Your task to perform on an android device: uninstall "Google Keep" Image 0: 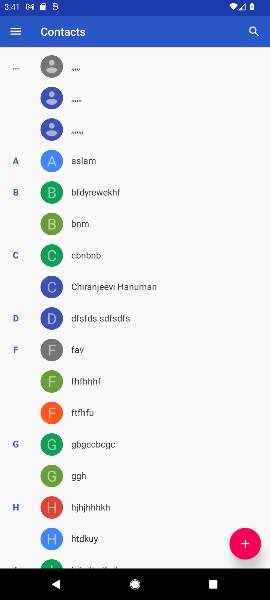
Step 0: press home button
Your task to perform on an android device: uninstall "Google Keep" Image 1: 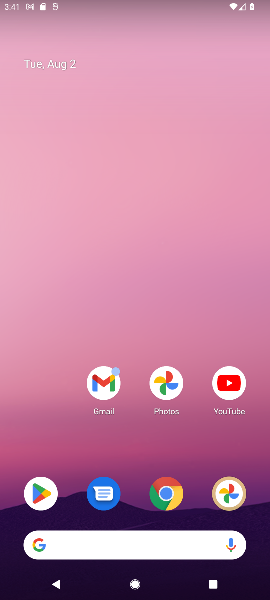
Step 1: click (39, 495)
Your task to perform on an android device: uninstall "Google Keep" Image 2: 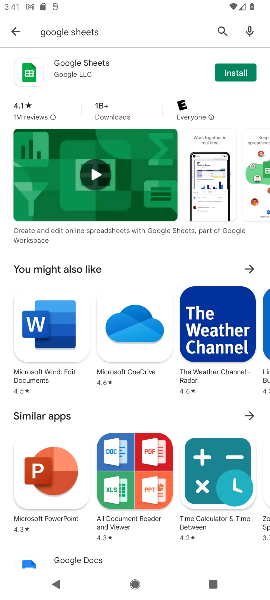
Step 2: click (147, 31)
Your task to perform on an android device: uninstall "Google Keep" Image 3: 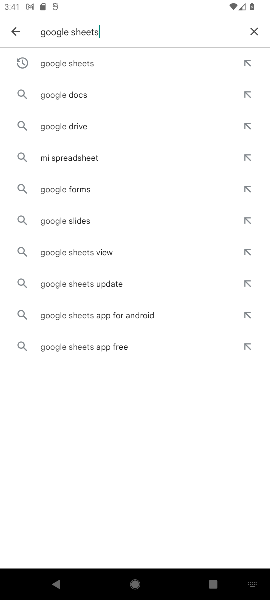
Step 3: click (173, 34)
Your task to perform on an android device: uninstall "Google Keep" Image 4: 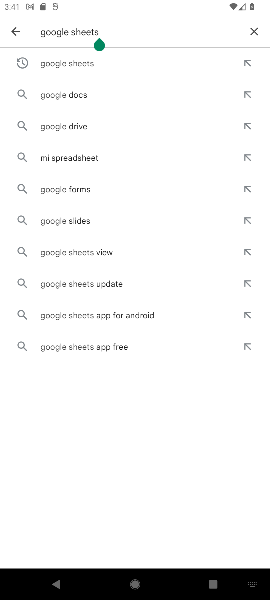
Step 4: click (256, 29)
Your task to perform on an android device: uninstall "Google Keep" Image 5: 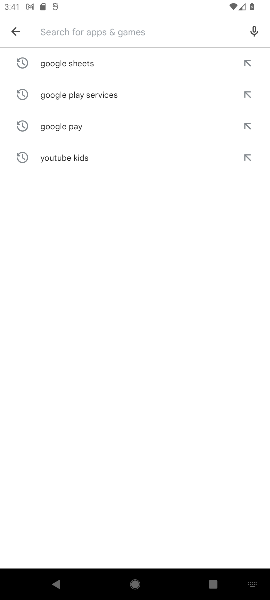
Step 5: type "google keep"
Your task to perform on an android device: uninstall "Google Keep" Image 6: 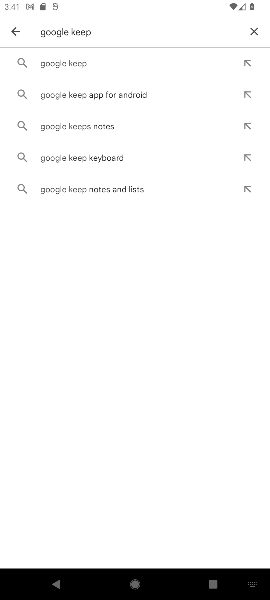
Step 6: click (71, 63)
Your task to perform on an android device: uninstall "Google Keep" Image 7: 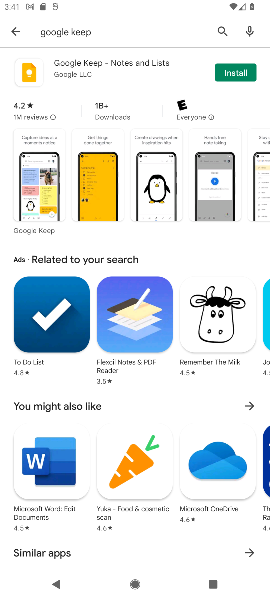
Step 7: task complete